Your task to perform on an android device: Open the calendar and show me this week's events? Image 0: 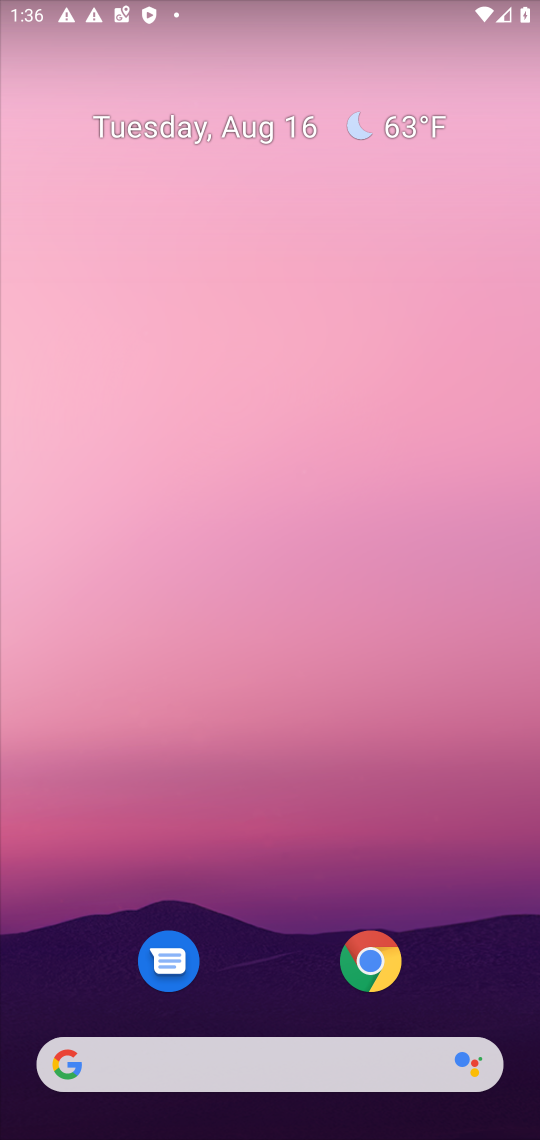
Step 0: drag from (421, 879) to (318, 0)
Your task to perform on an android device: Open the calendar and show me this week's events? Image 1: 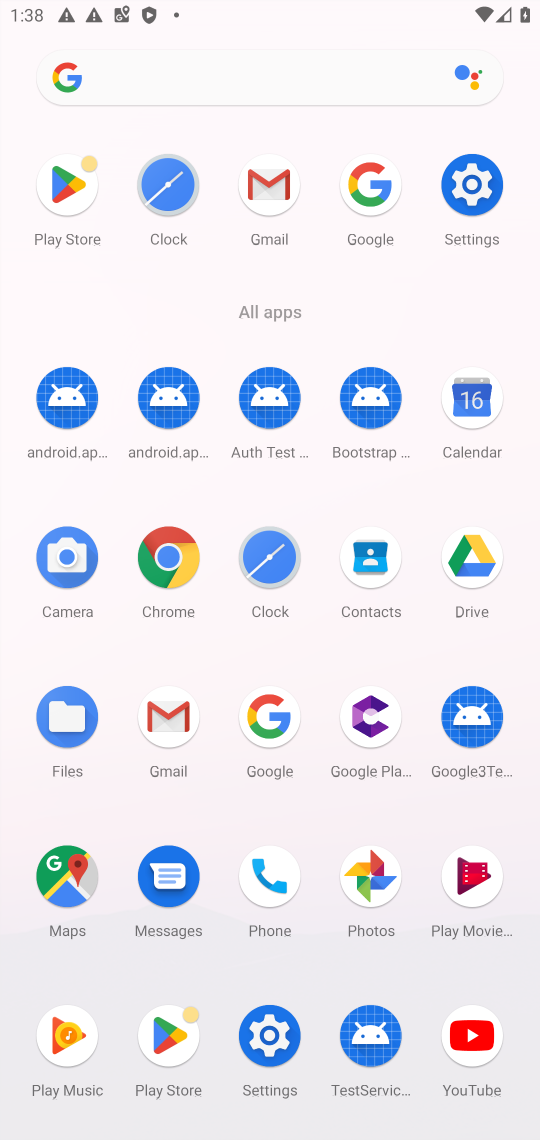
Step 1: click (477, 430)
Your task to perform on an android device: Open the calendar and show me this week's events? Image 2: 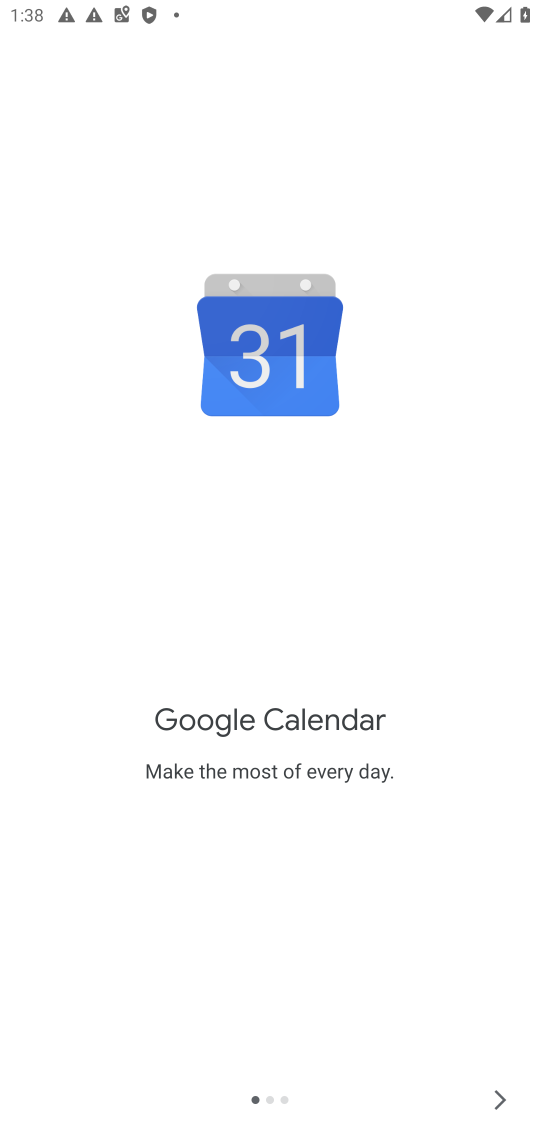
Step 2: click (506, 1085)
Your task to perform on an android device: Open the calendar and show me this week's events? Image 3: 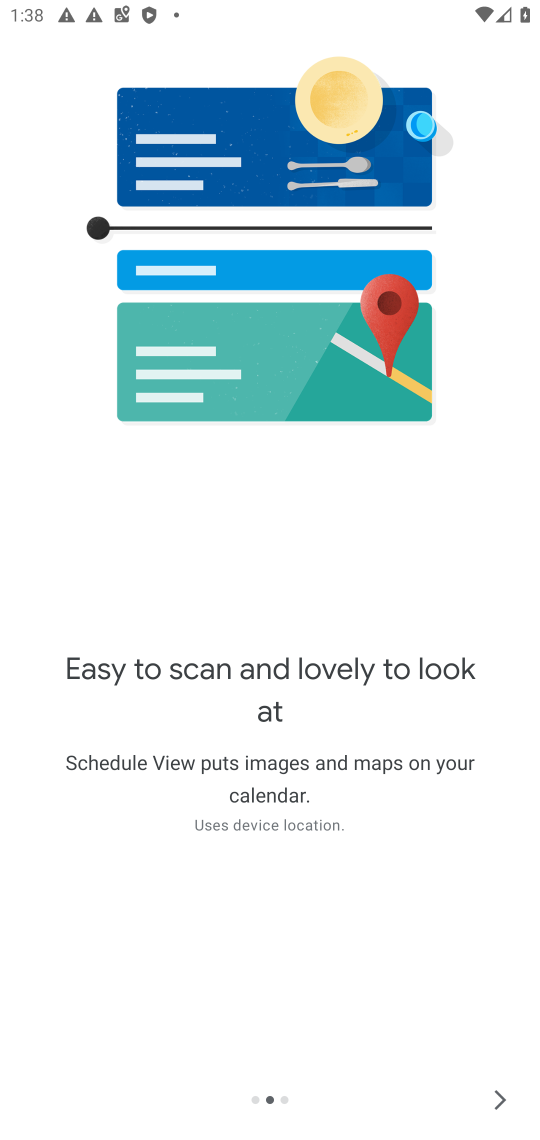
Step 3: click (506, 1085)
Your task to perform on an android device: Open the calendar and show me this week's events? Image 4: 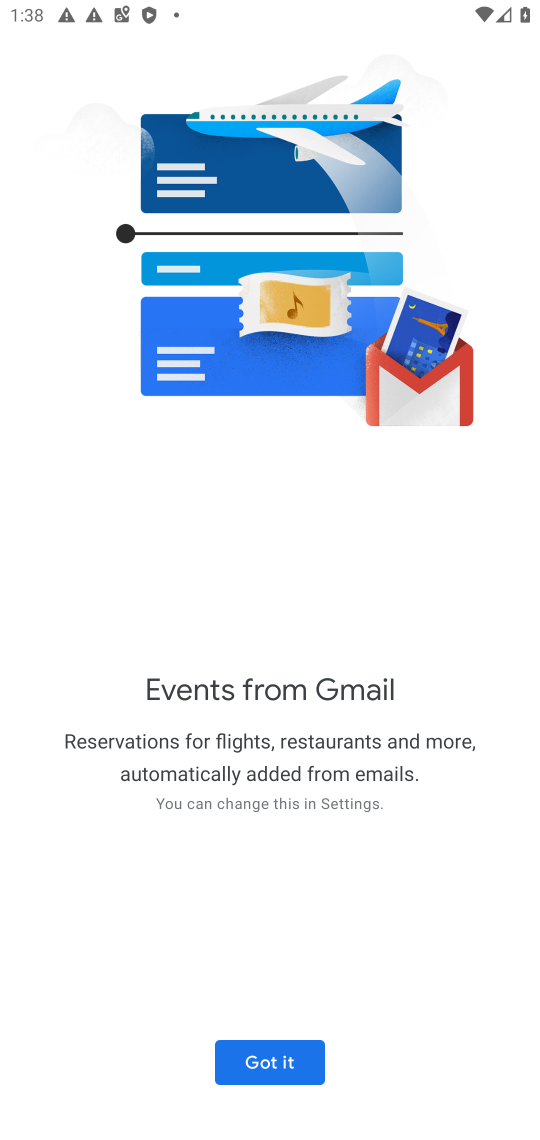
Step 4: click (258, 1055)
Your task to perform on an android device: Open the calendar and show me this week's events? Image 5: 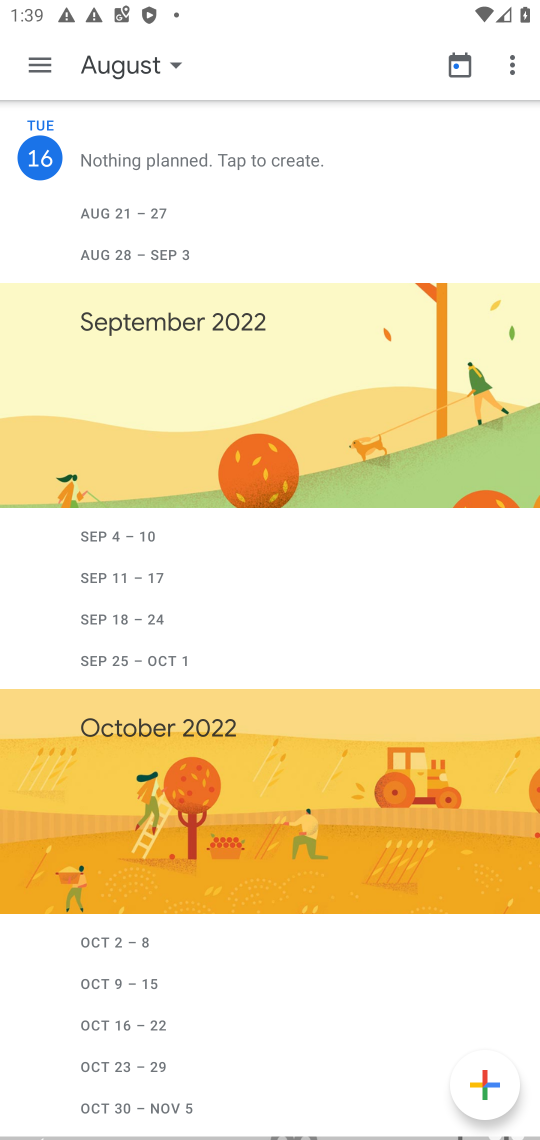
Step 5: task complete